Your task to perform on an android device: Open Google Image 0: 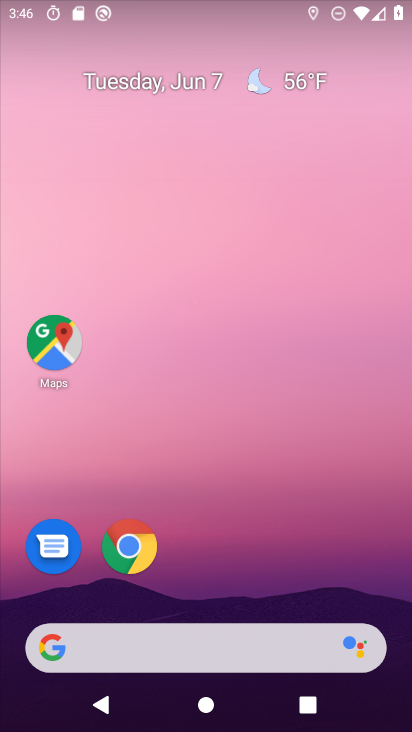
Step 0: drag from (309, 521) to (183, 21)
Your task to perform on an android device: Open Google Image 1: 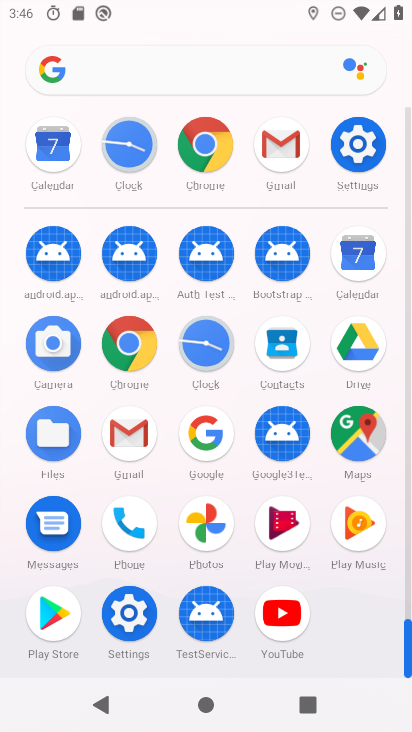
Step 1: click (121, 339)
Your task to perform on an android device: Open Google Image 2: 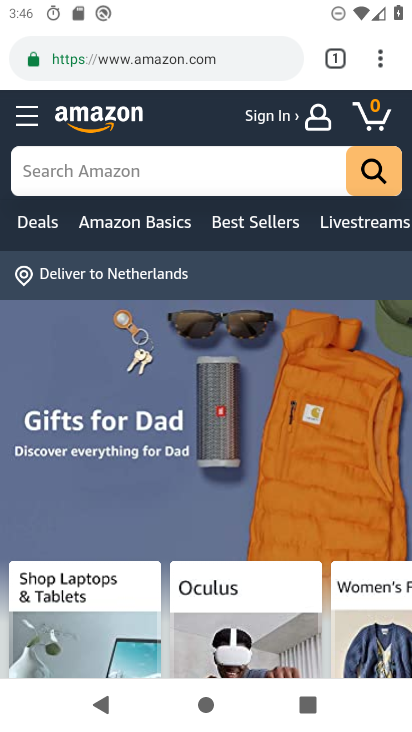
Step 2: click (125, 54)
Your task to perform on an android device: Open Google Image 3: 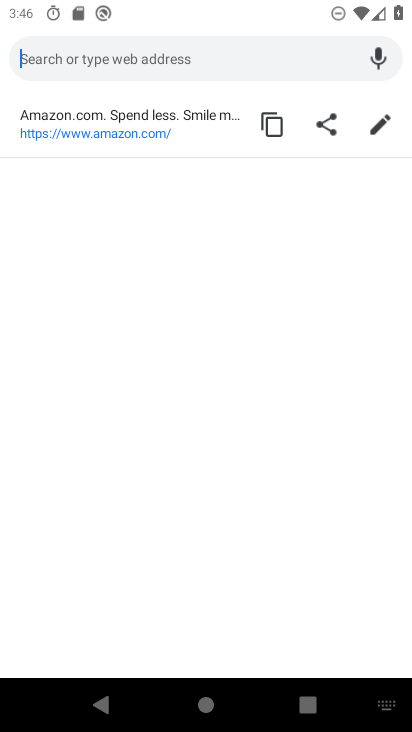
Step 3: type "Google"
Your task to perform on an android device: Open Google Image 4: 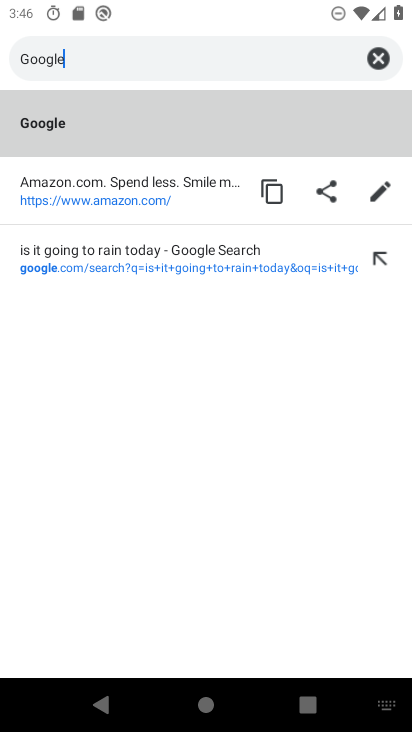
Step 4: type ""
Your task to perform on an android device: Open Google Image 5: 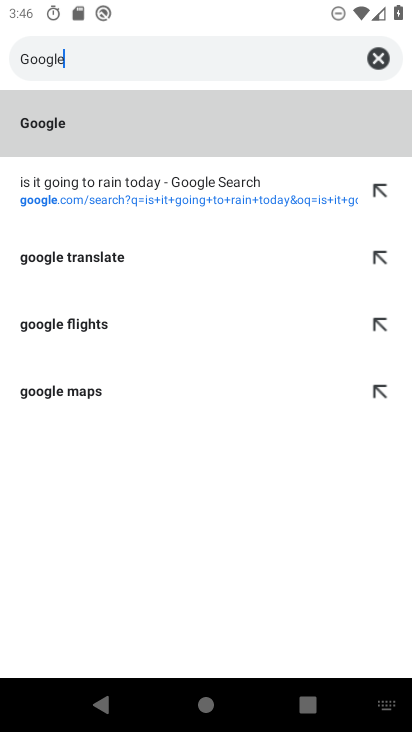
Step 5: click (86, 185)
Your task to perform on an android device: Open Google Image 6: 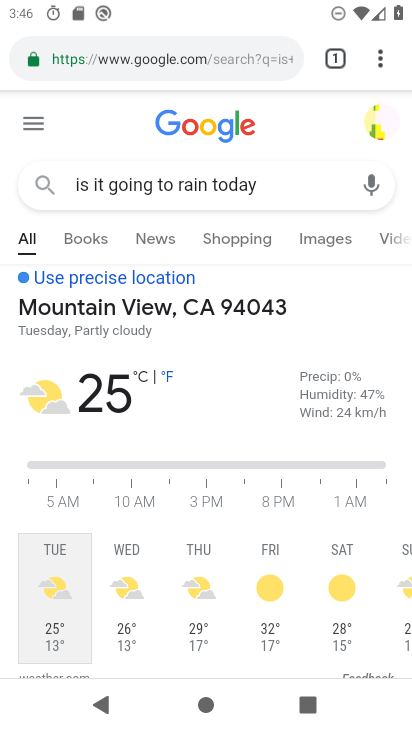
Step 6: task complete